Your task to perform on an android device: turn off priority inbox in the gmail app Image 0: 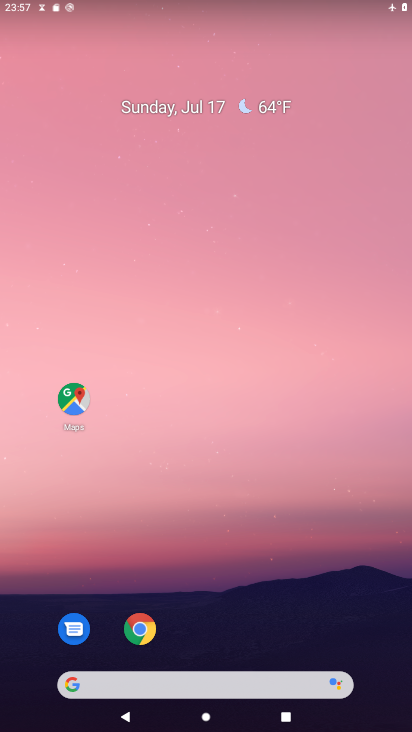
Step 0: drag from (277, 647) to (287, 229)
Your task to perform on an android device: turn off priority inbox in the gmail app Image 1: 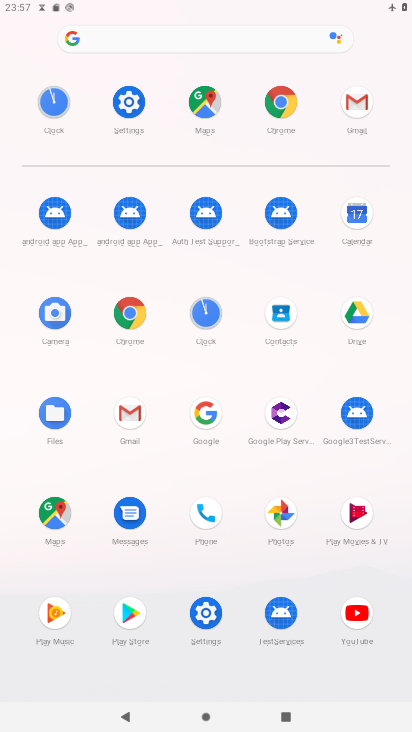
Step 1: click (347, 103)
Your task to perform on an android device: turn off priority inbox in the gmail app Image 2: 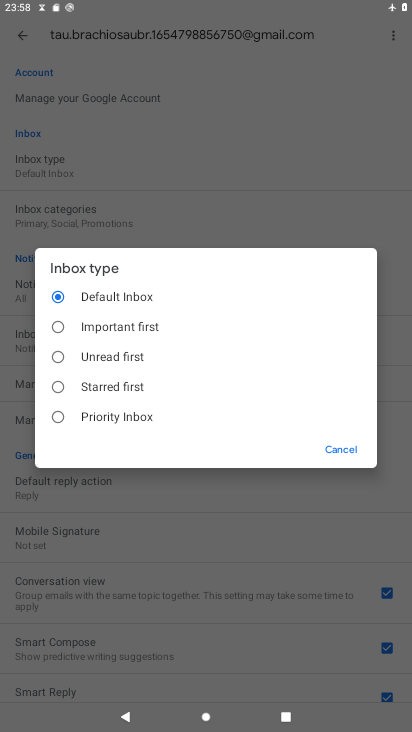
Step 2: task complete